Your task to perform on an android device: turn notification dots off Image 0: 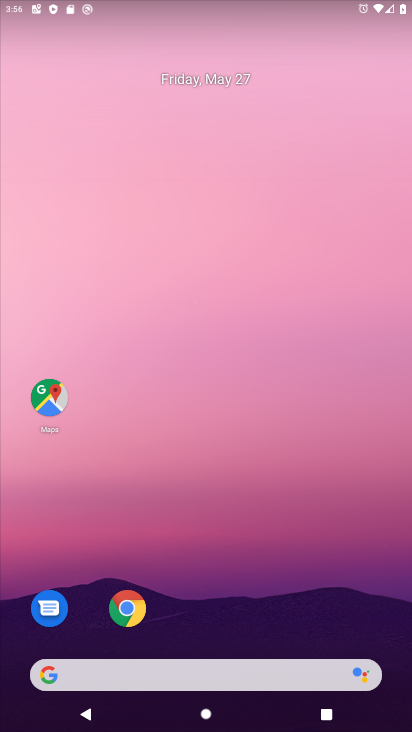
Step 0: drag from (233, 647) to (231, 216)
Your task to perform on an android device: turn notification dots off Image 1: 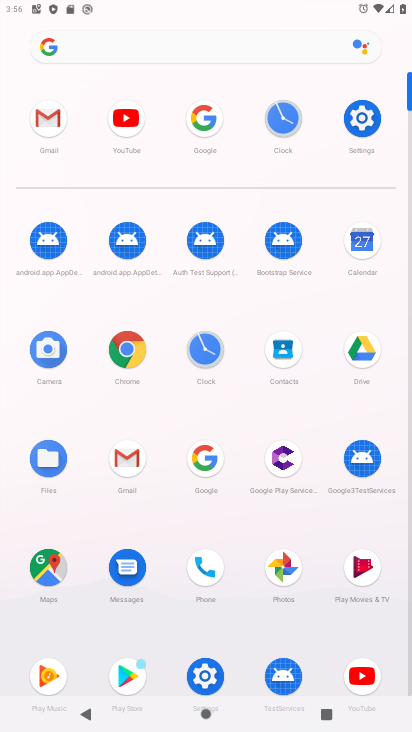
Step 1: click (374, 121)
Your task to perform on an android device: turn notification dots off Image 2: 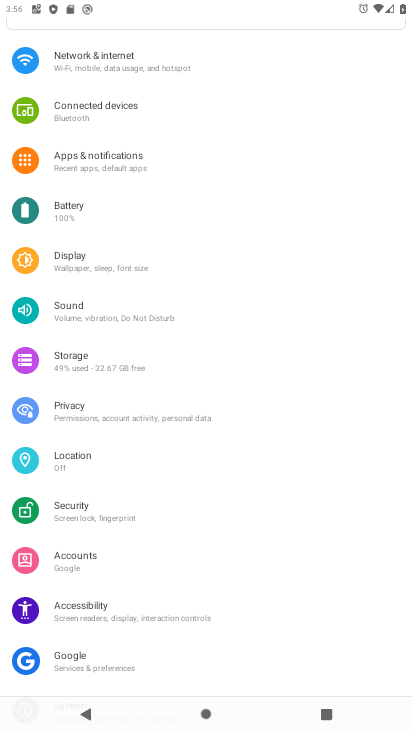
Step 2: click (131, 150)
Your task to perform on an android device: turn notification dots off Image 3: 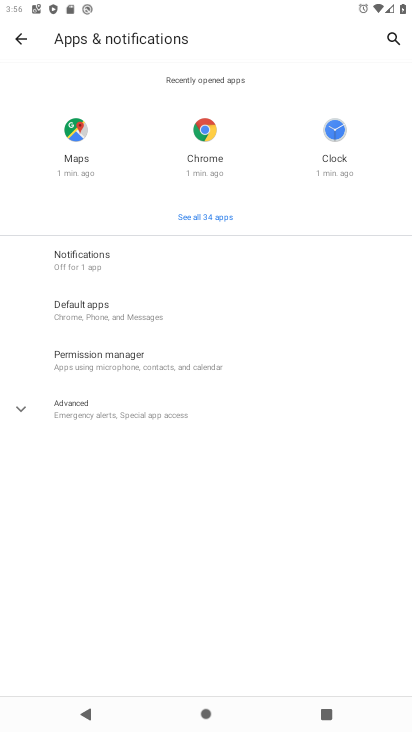
Step 3: click (95, 261)
Your task to perform on an android device: turn notification dots off Image 4: 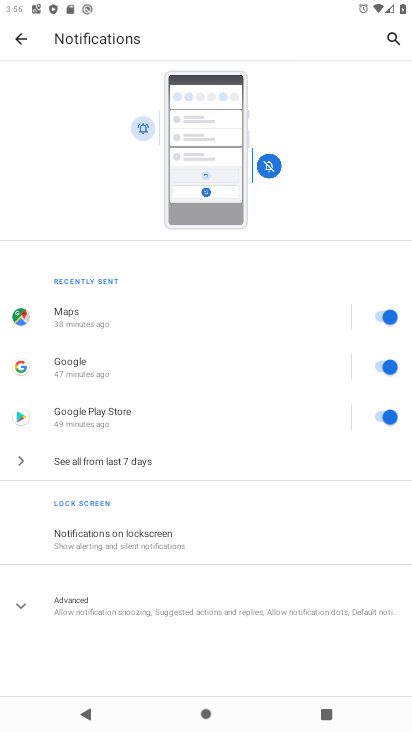
Step 4: click (126, 598)
Your task to perform on an android device: turn notification dots off Image 5: 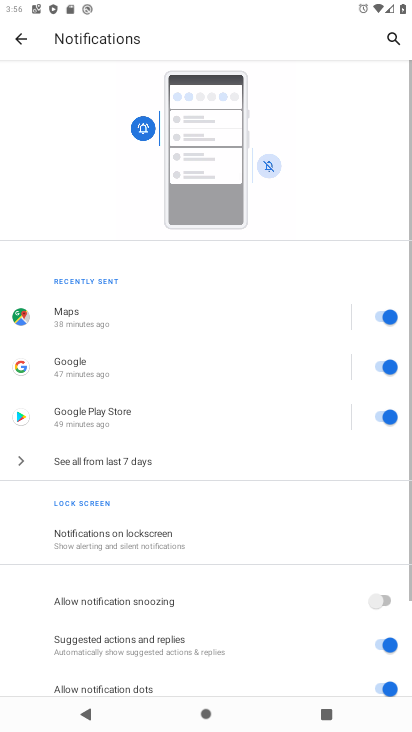
Step 5: drag from (341, 666) to (311, 343)
Your task to perform on an android device: turn notification dots off Image 6: 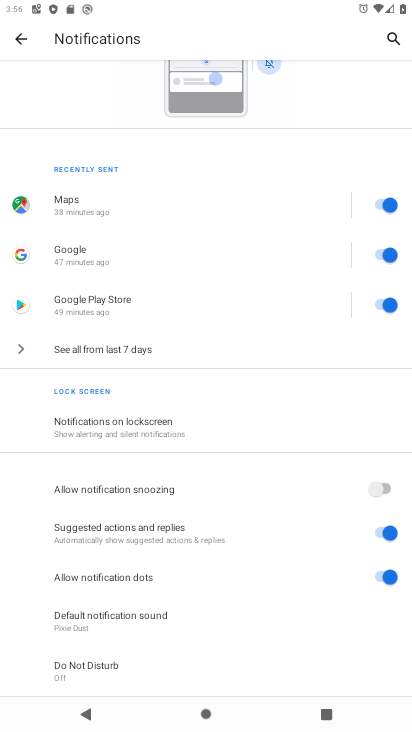
Step 6: click (379, 573)
Your task to perform on an android device: turn notification dots off Image 7: 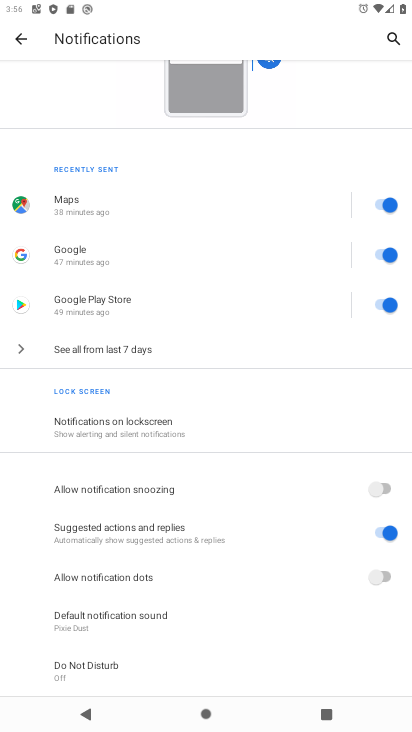
Step 7: task complete